Your task to perform on an android device: turn pop-ups on in chrome Image 0: 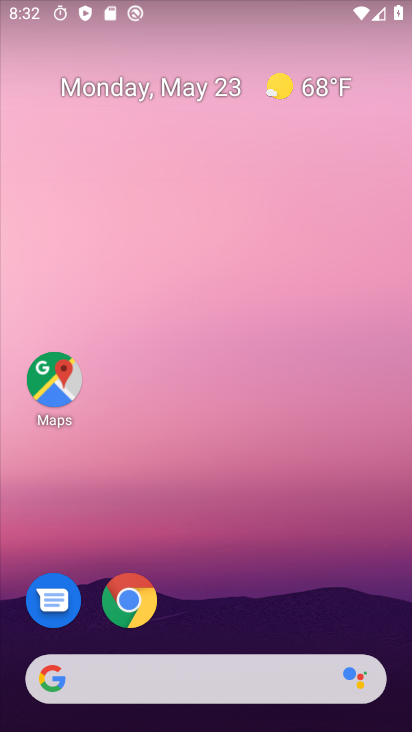
Step 0: press home button
Your task to perform on an android device: turn pop-ups on in chrome Image 1: 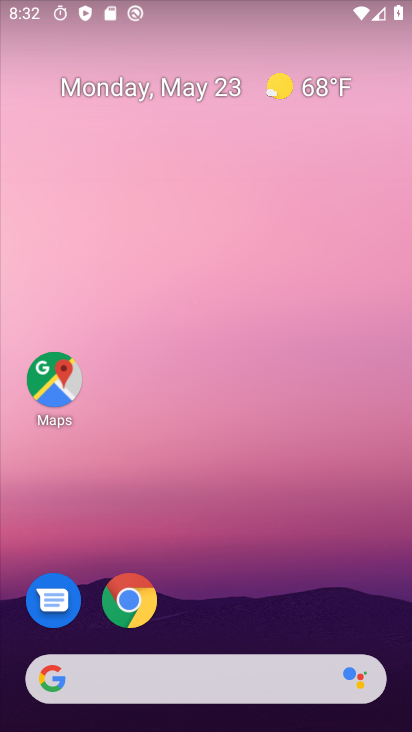
Step 1: click (123, 591)
Your task to perform on an android device: turn pop-ups on in chrome Image 2: 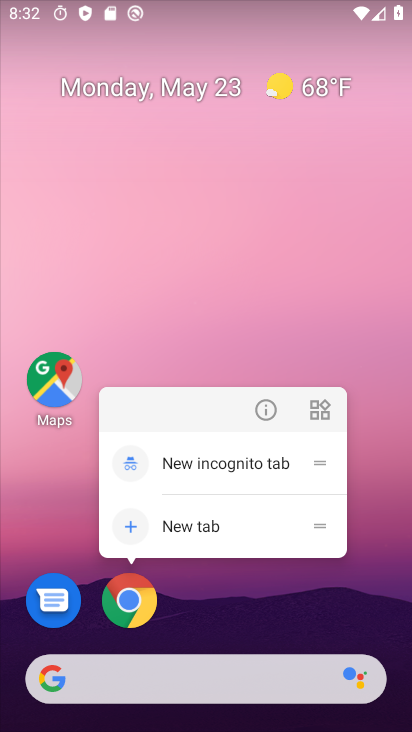
Step 2: click (122, 602)
Your task to perform on an android device: turn pop-ups on in chrome Image 3: 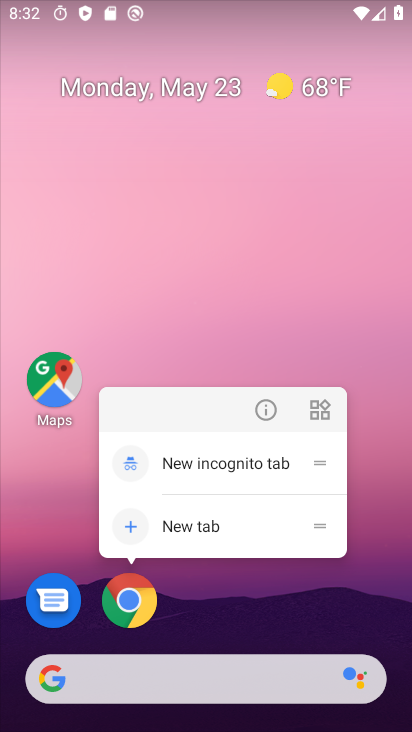
Step 3: click (123, 601)
Your task to perform on an android device: turn pop-ups on in chrome Image 4: 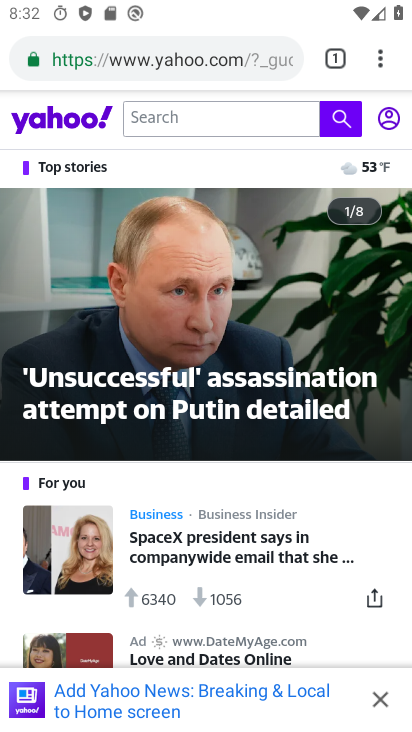
Step 4: click (376, 58)
Your task to perform on an android device: turn pop-ups on in chrome Image 5: 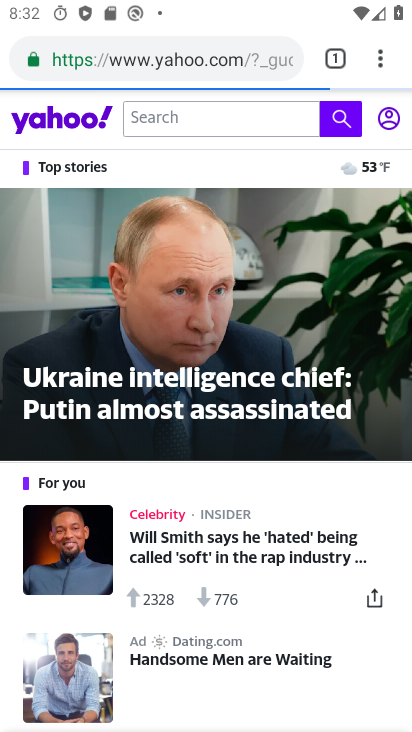
Step 5: click (381, 62)
Your task to perform on an android device: turn pop-ups on in chrome Image 6: 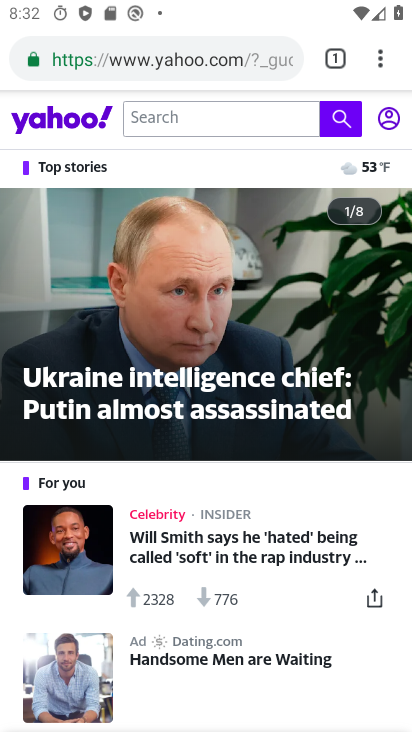
Step 6: click (379, 51)
Your task to perform on an android device: turn pop-ups on in chrome Image 7: 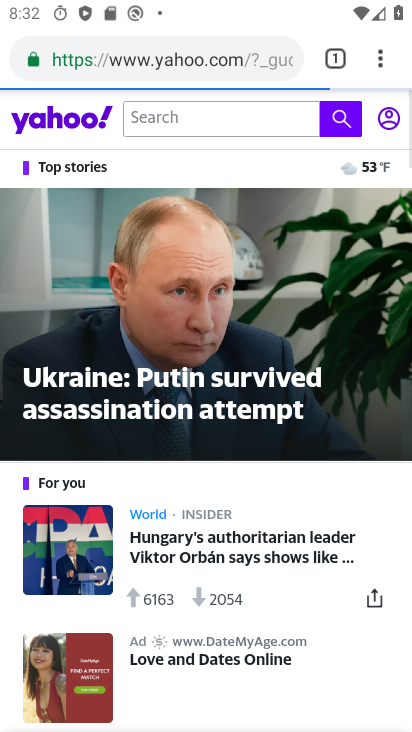
Step 7: click (393, 55)
Your task to perform on an android device: turn pop-ups on in chrome Image 8: 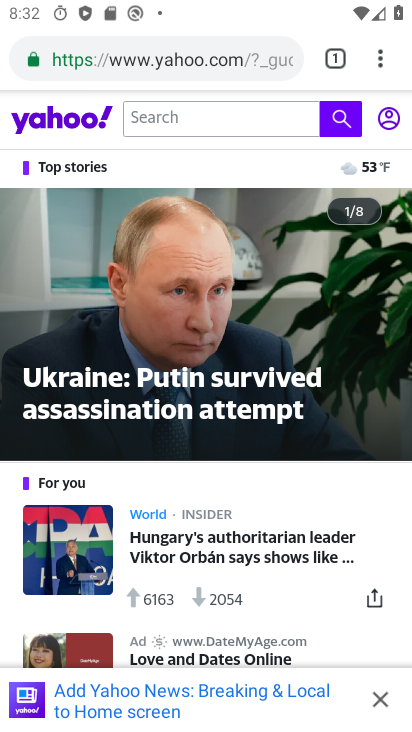
Step 8: click (393, 55)
Your task to perform on an android device: turn pop-ups on in chrome Image 9: 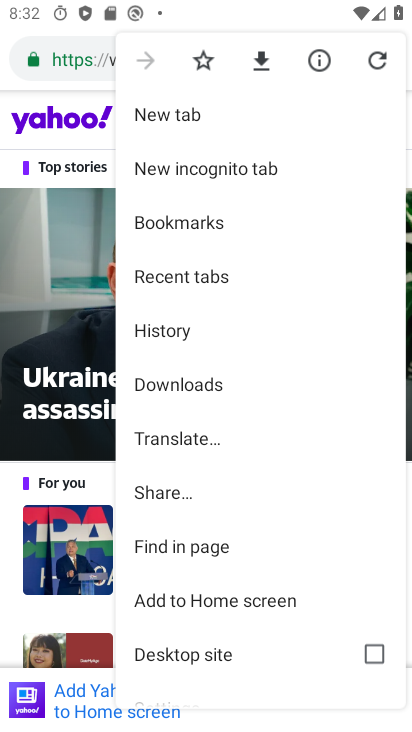
Step 9: drag from (181, 651) to (318, 150)
Your task to perform on an android device: turn pop-ups on in chrome Image 10: 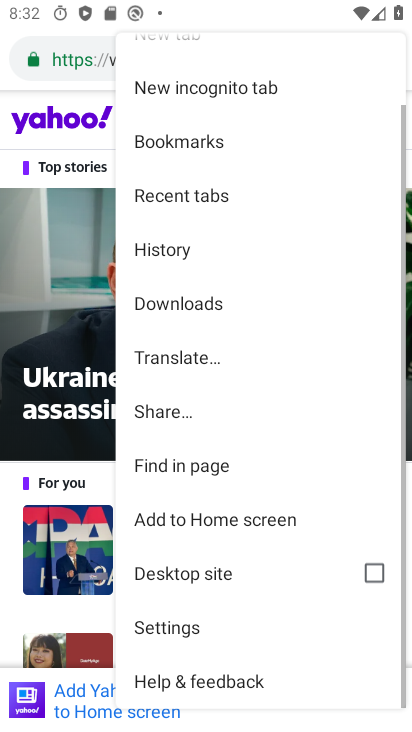
Step 10: click (174, 621)
Your task to perform on an android device: turn pop-ups on in chrome Image 11: 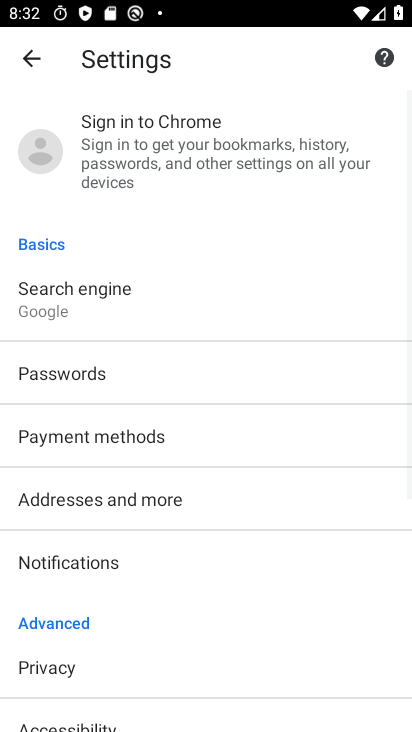
Step 11: drag from (25, 583) to (187, 225)
Your task to perform on an android device: turn pop-ups on in chrome Image 12: 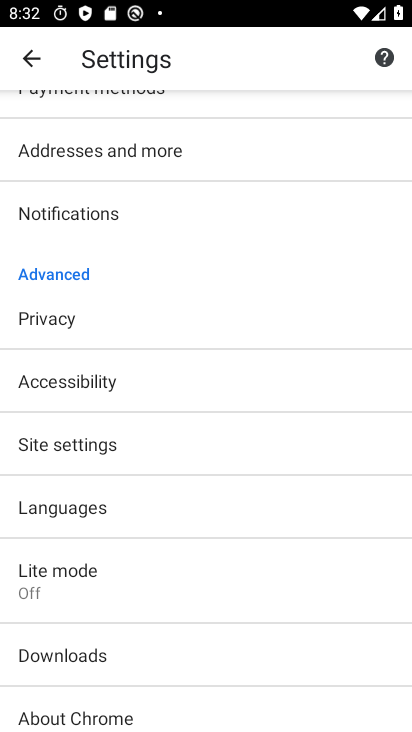
Step 12: click (105, 426)
Your task to perform on an android device: turn pop-ups on in chrome Image 13: 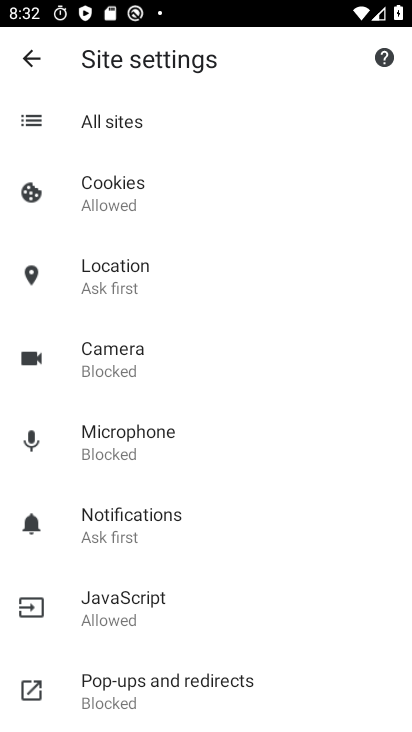
Step 13: click (89, 695)
Your task to perform on an android device: turn pop-ups on in chrome Image 14: 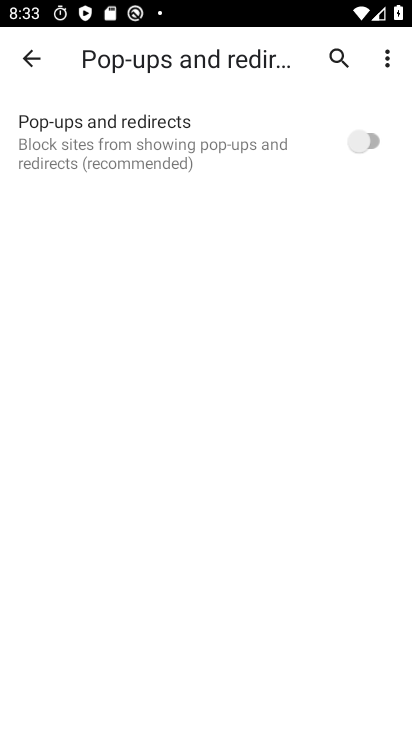
Step 14: click (356, 134)
Your task to perform on an android device: turn pop-ups on in chrome Image 15: 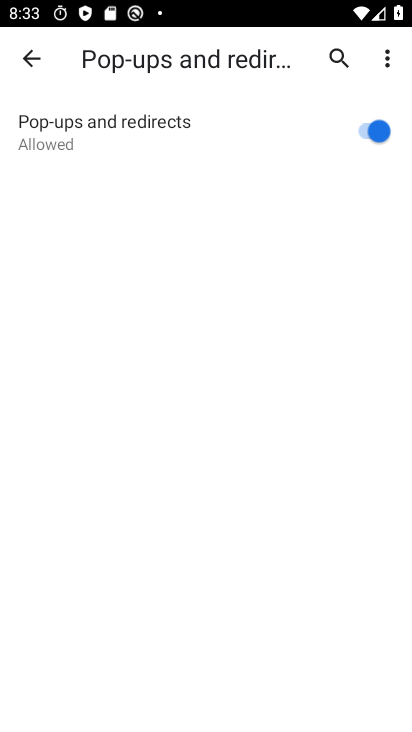
Step 15: task complete